Your task to perform on an android device: change the clock style Image 0: 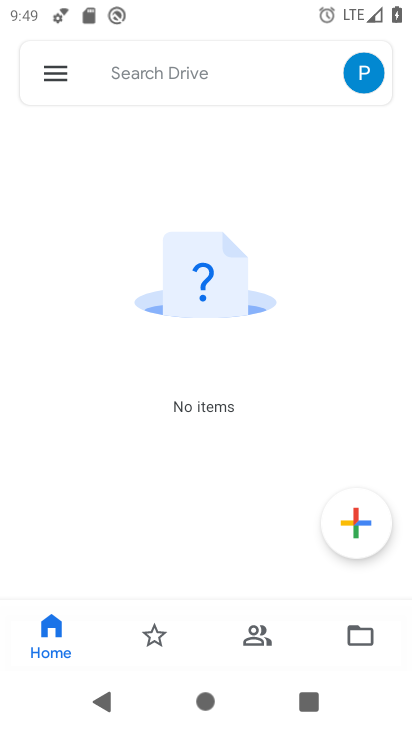
Step 0: press home button
Your task to perform on an android device: change the clock style Image 1: 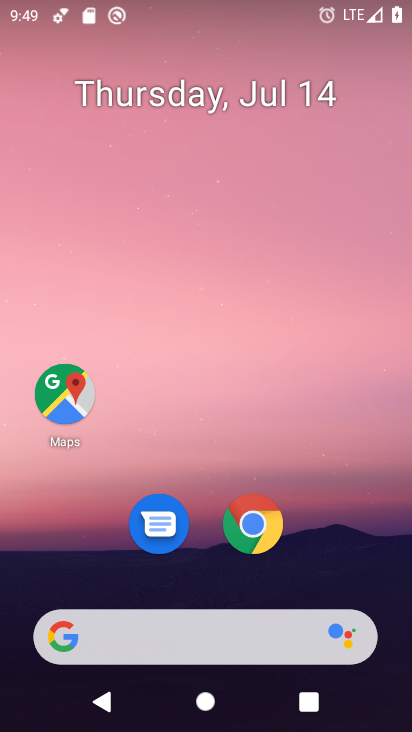
Step 1: drag from (331, 522) to (296, 53)
Your task to perform on an android device: change the clock style Image 2: 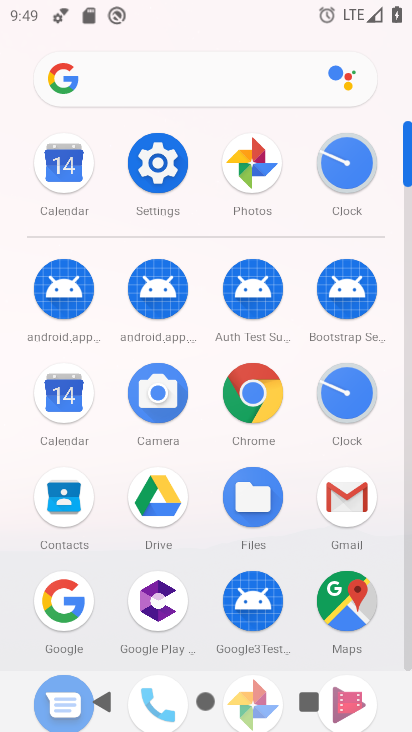
Step 2: click (360, 162)
Your task to perform on an android device: change the clock style Image 3: 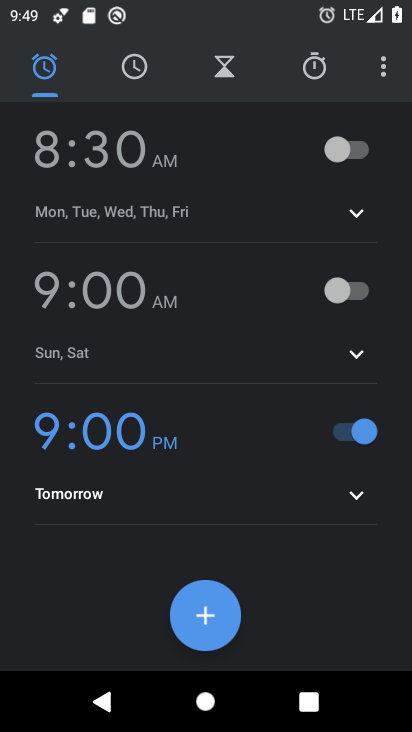
Step 3: click (380, 68)
Your task to perform on an android device: change the clock style Image 4: 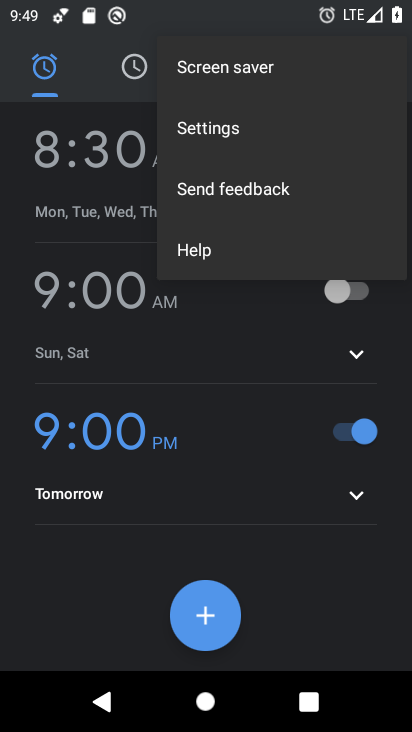
Step 4: click (290, 124)
Your task to perform on an android device: change the clock style Image 5: 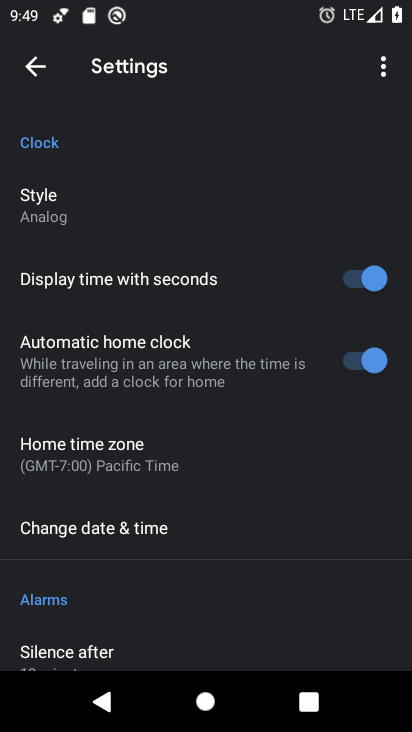
Step 5: click (83, 203)
Your task to perform on an android device: change the clock style Image 6: 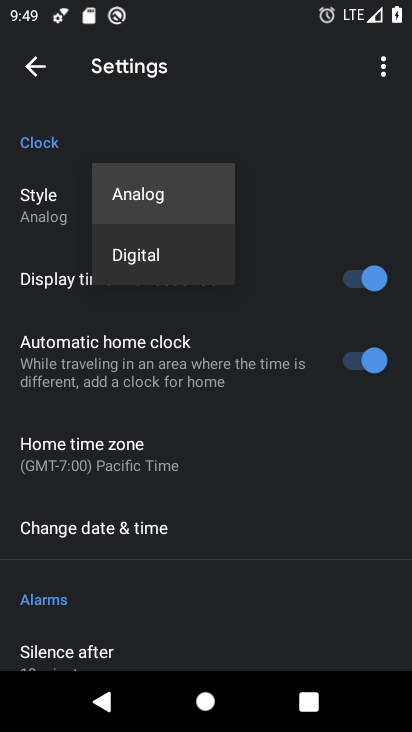
Step 6: click (126, 248)
Your task to perform on an android device: change the clock style Image 7: 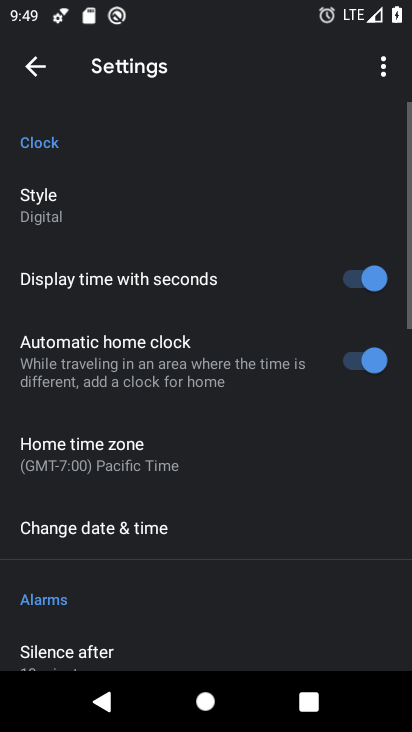
Step 7: click (34, 65)
Your task to perform on an android device: change the clock style Image 8: 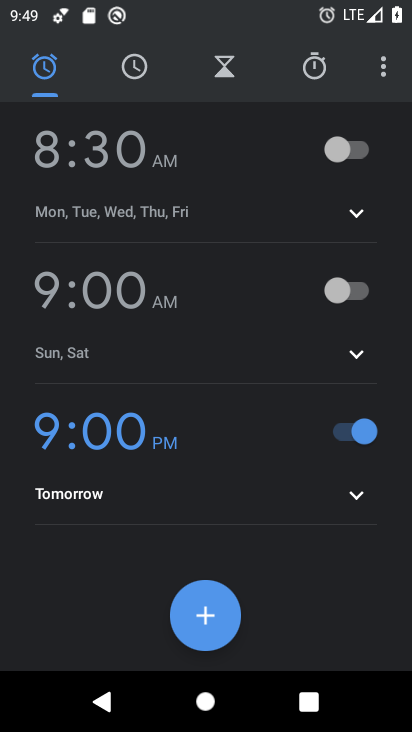
Step 8: click (127, 71)
Your task to perform on an android device: change the clock style Image 9: 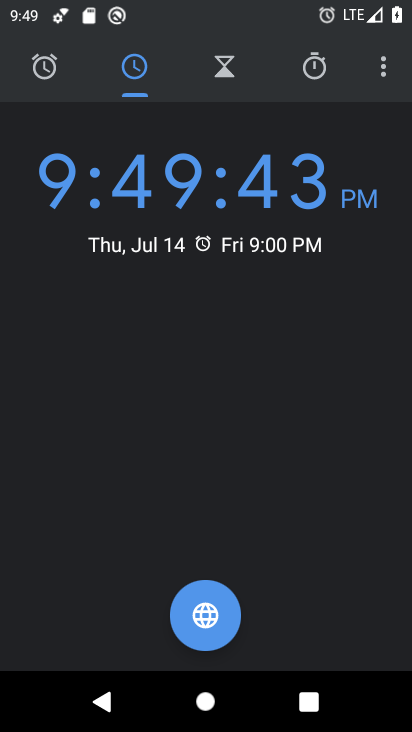
Step 9: task complete